Your task to perform on an android device: turn off translation in the chrome app Image 0: 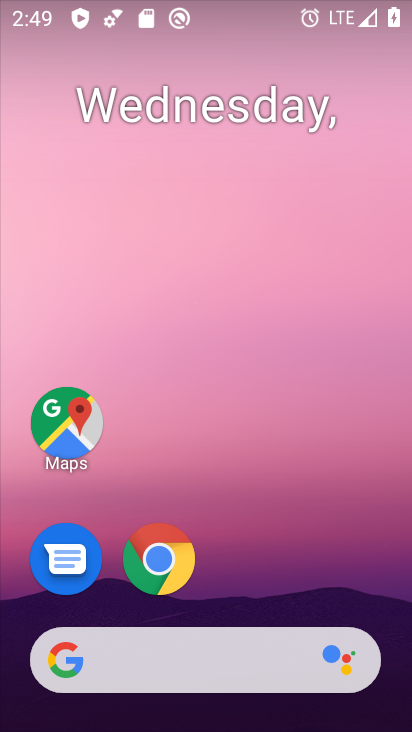
Step 0: click (156, 554)
Your task to perform on an android device: turn off translation in the chrome app Image 1: 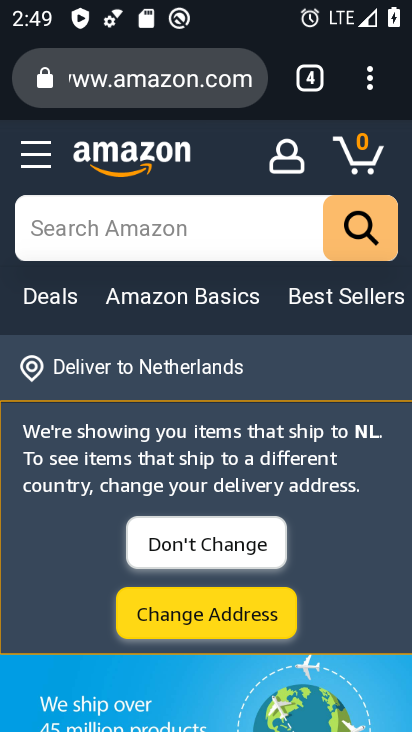
Step 1: drag from (374, 72) to (84, 616)
Your task to perform on an android device: turn off translation in the chrome app Image 2: 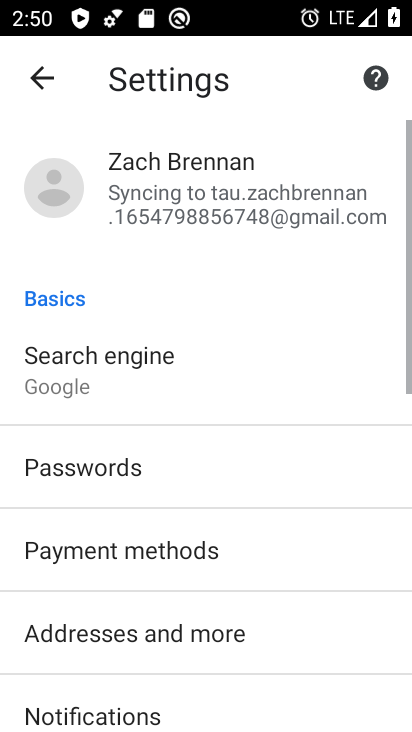
Step 2: drag from (84, 615) to (246, 72)
Your task to perform on an android device: turn off translation in the chrome app Image 3: 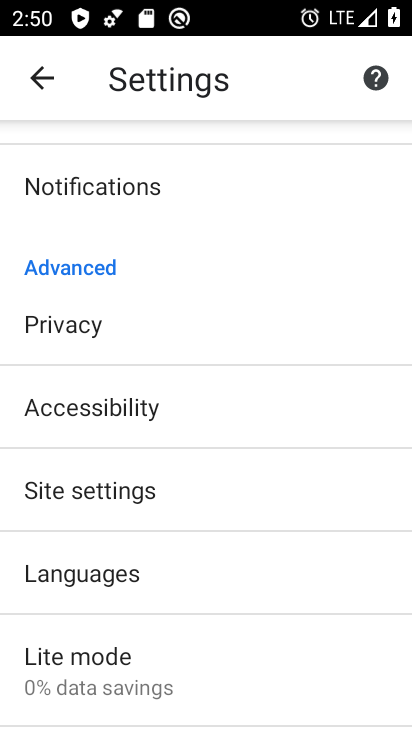
Step 3: click (71, 569)
Your task to perform on an android device: turn off translation in the chrome app Image 4: 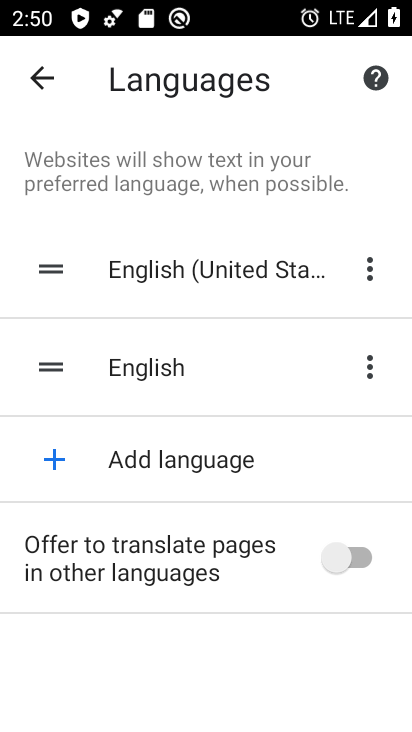
Step 4: task complete